Your task to perform on an android device: Go to Wikipedia Image 0: 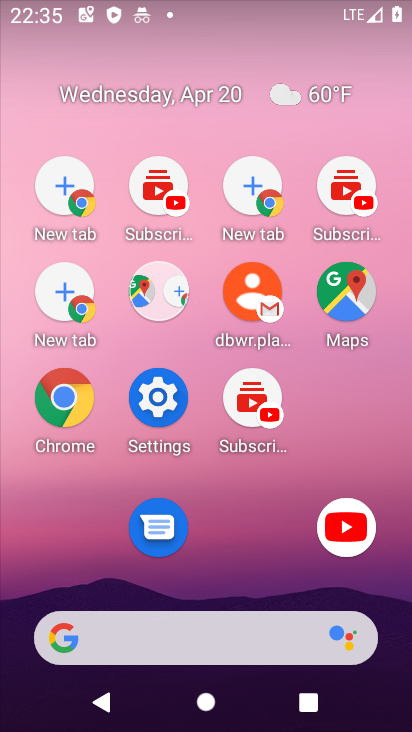
Step 0: drag from (296, 706) to (214, 70)
Your task to perform on an android device: Go to Wikipedia Image 1: 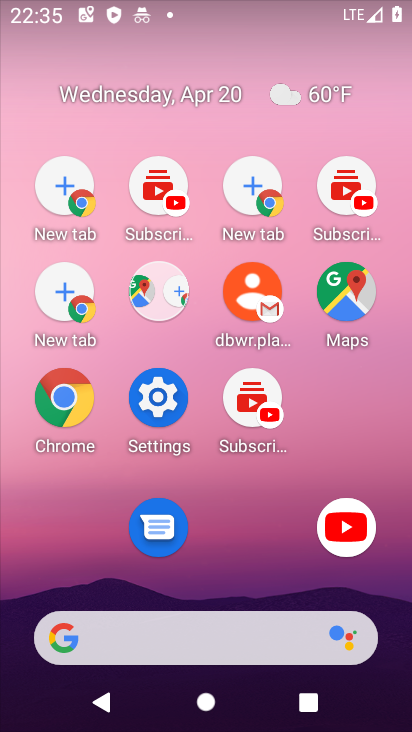
Step 1: drag from (185, 284) to (167, 116)
Your task to perform on an android device: Go to Wikipedia Image 2: 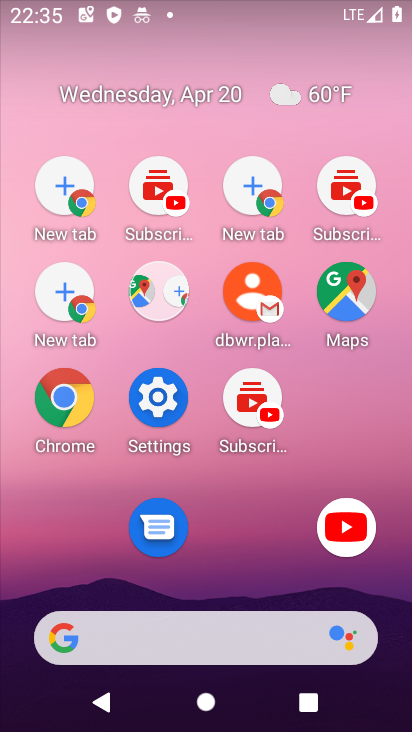
Step 2: click (56, 412)
Your task to perform on an android device: Go to Wikipedia Image 3: 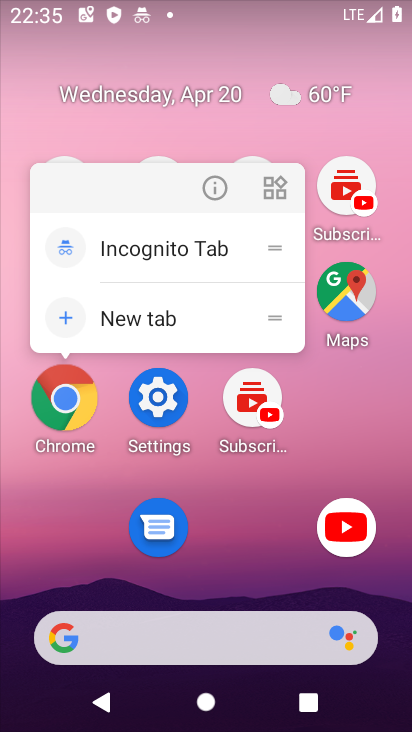
Step 3: click (66, 401)
Your task to perform on an android device: Go to Wikipedia Image 4: 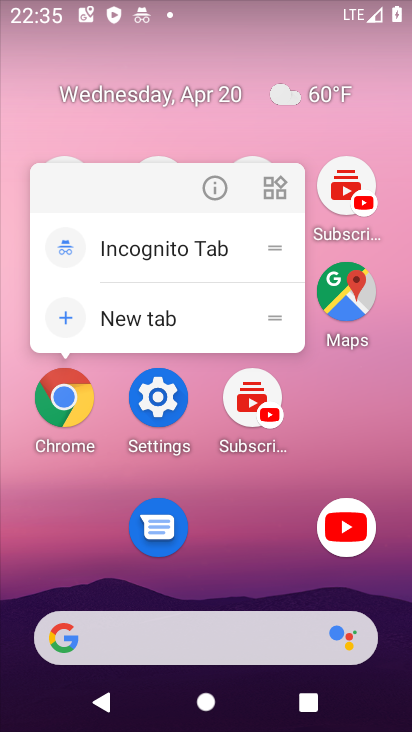
Step 4: drag from (59, 414) to (77, 347)
Your task to perform on an android device: Go to Wikipedia Image 5: 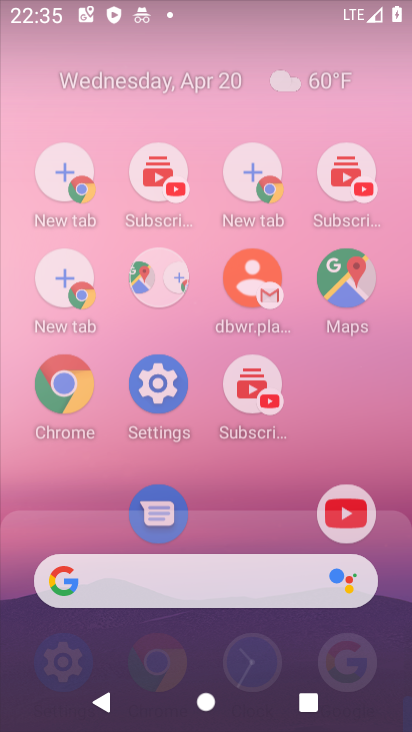
Step 5: click (104, 313)
Your task to perform on an android device: Go to Wikipedia Image 6: 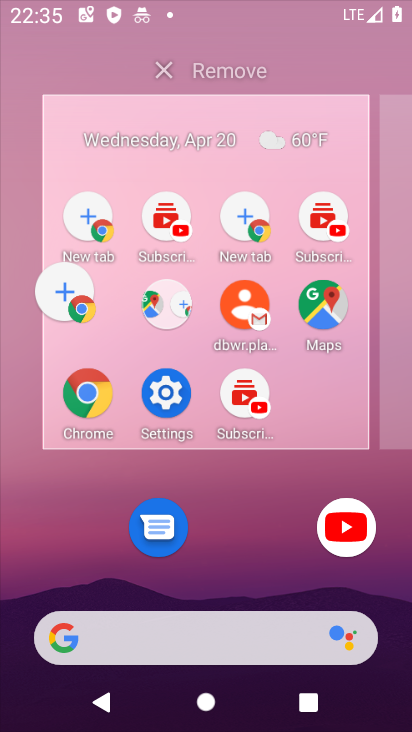
Step 6: click (107, 315)
Your task to perform on an android device: Go to Wikipedia Image 7: 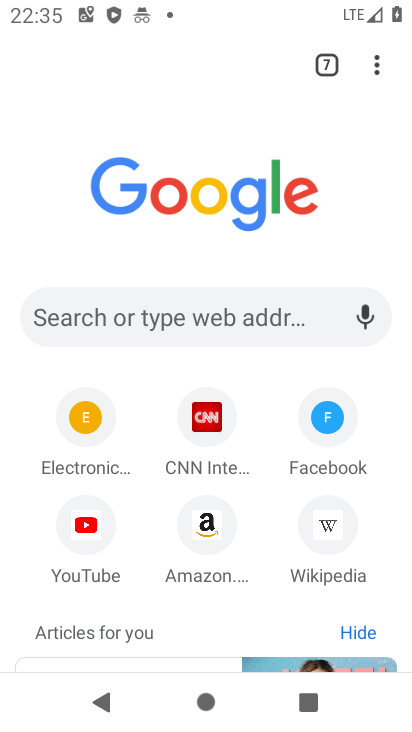
Step 7: drag from (297, 620) to (157, 98)
Your task to perform on an android device: Go to Wikipedia Image 8: 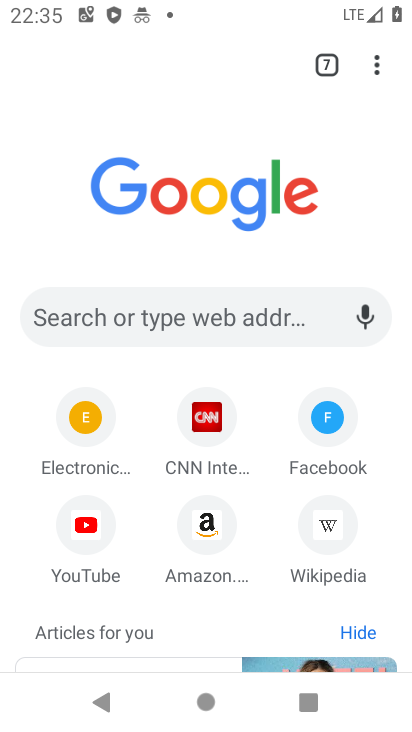
Step 8: click (333, 523)
Your task to perform on an android device: Go to Wikipedia Image 9: 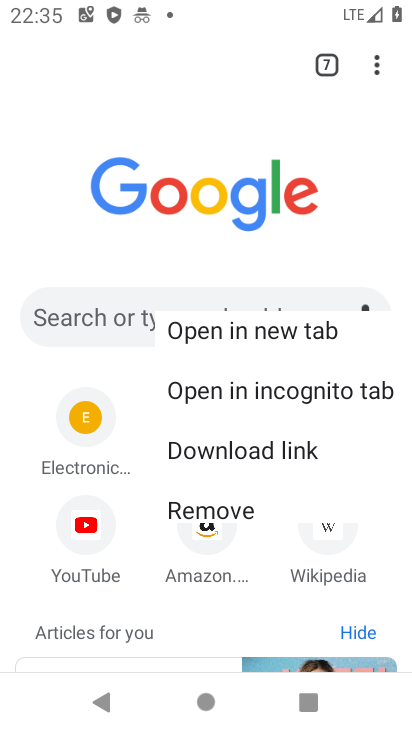
Step 9: click (330, 522)
Your task to perform on an android device: Go to Wikipedia Image 10: 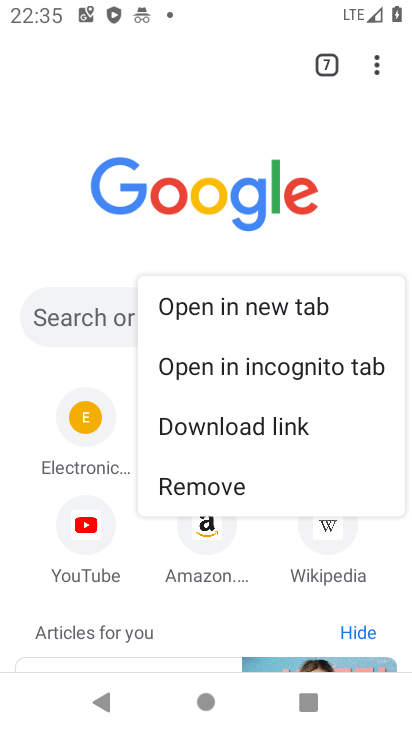
Step 10: click (258, 305)
Your task to perform on an android device: Go to Wikipedia Image 11: 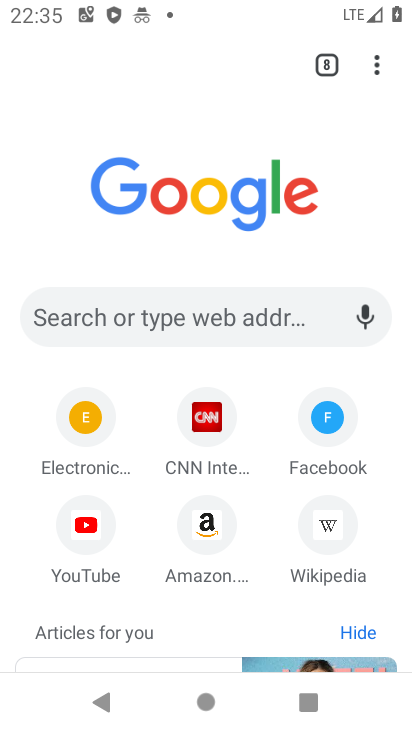
Step 11: task complete